Your task to perform on an android device: Look up the best rated coffee maker on Lowe's. Image 0: 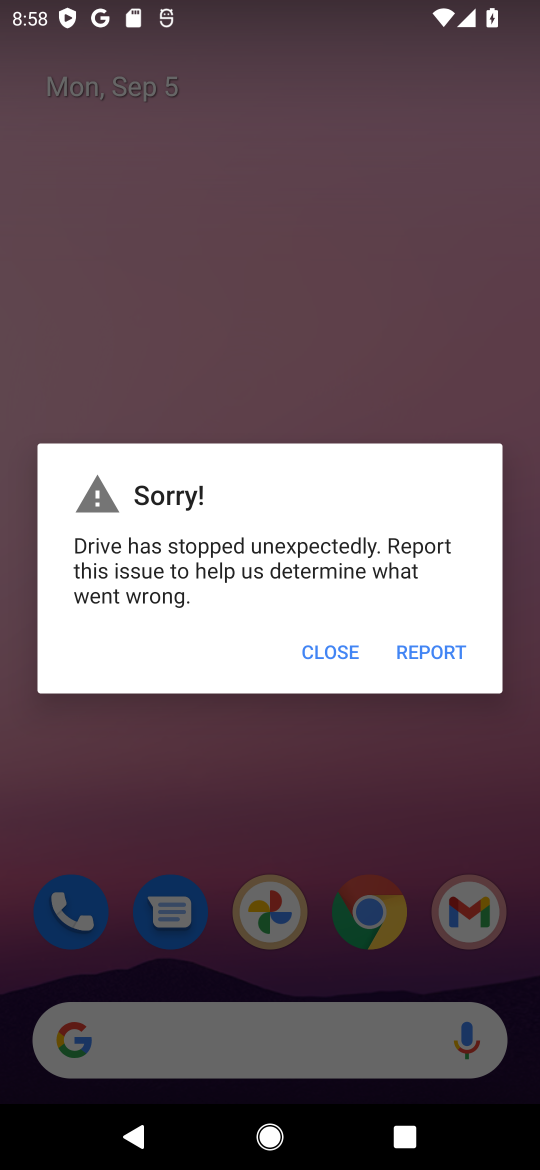
Step 0: press home button
Your task to perform on an android device: Look up the best rated coffee maker on Lowe's. Image 1: 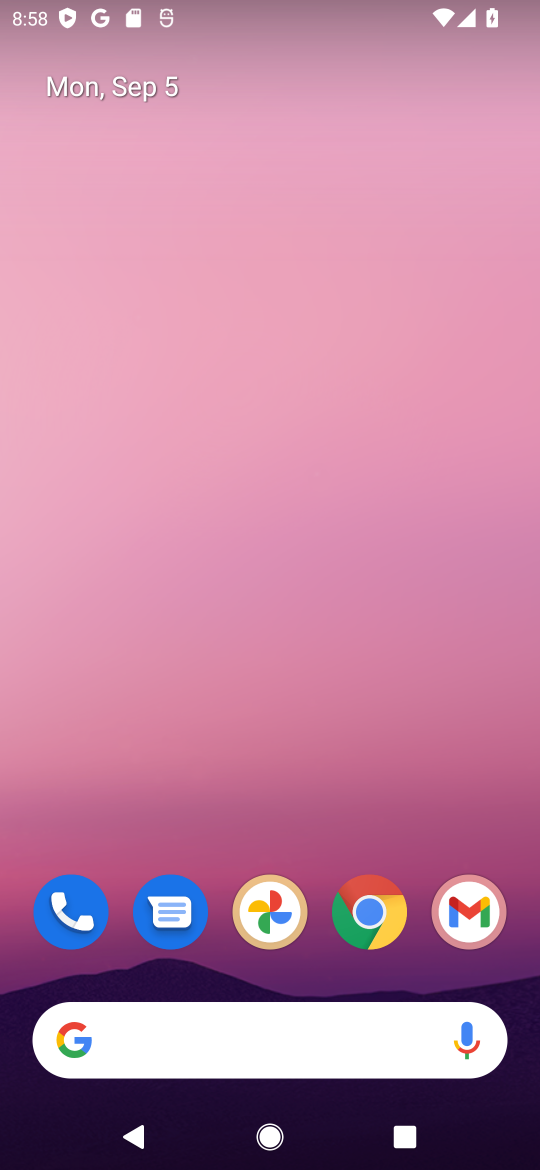
Step 1: click (374, 918)
Your task to perform on an android device: Look up the best rated coffee maker on Lowe's. Image 2: 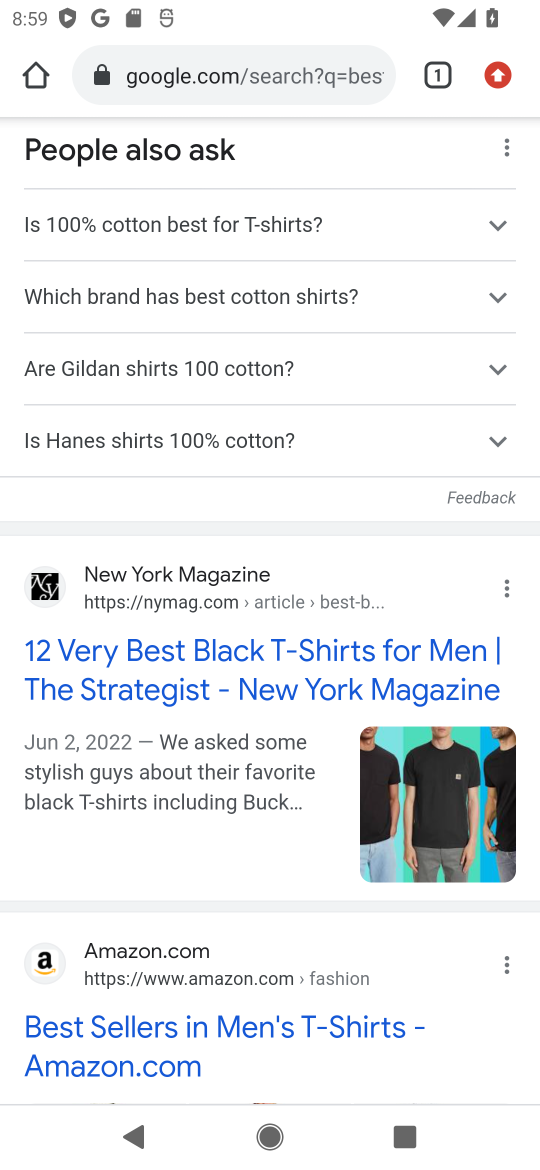
Step 2: click (273, 101)
Your task to perform on an android device: Look up the best rated coffee maker on Lowe's. Image 3: 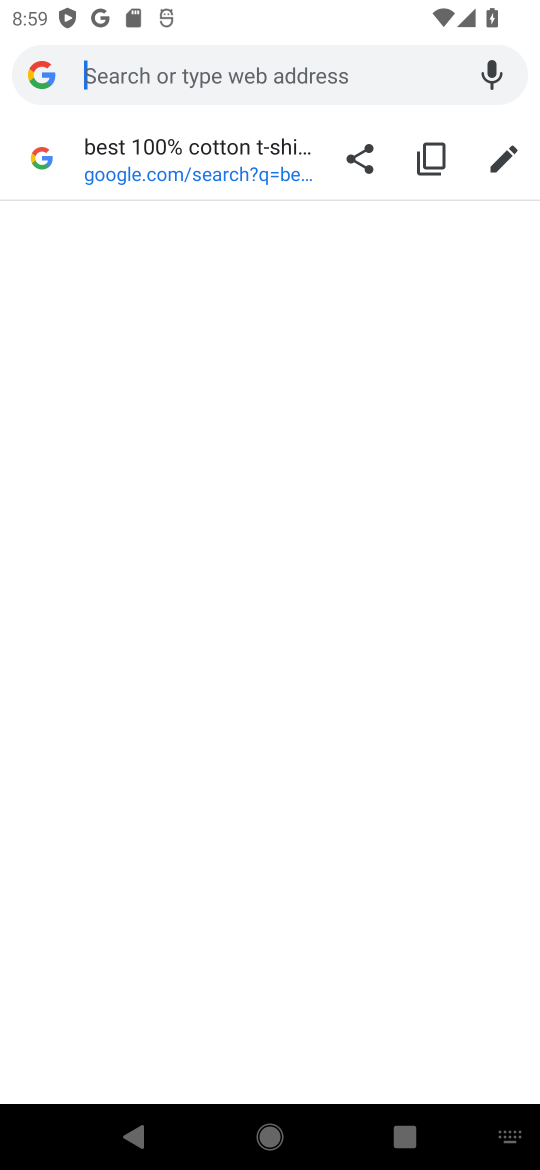
Step 3: click (263, 80)
Your task to perform on an android device: Look up the best rated coffee maker on Lowe's. Image 4: 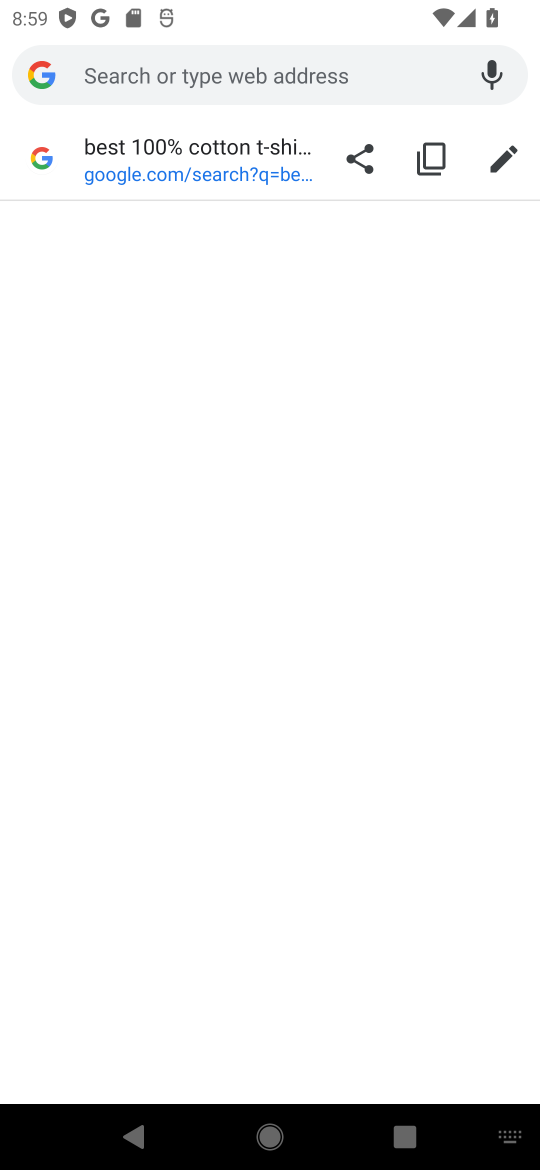
Step 4: type "lowe's"
Your task to perform on an android device: Look up the best rated coffee maker on Lowe's. Image 5: 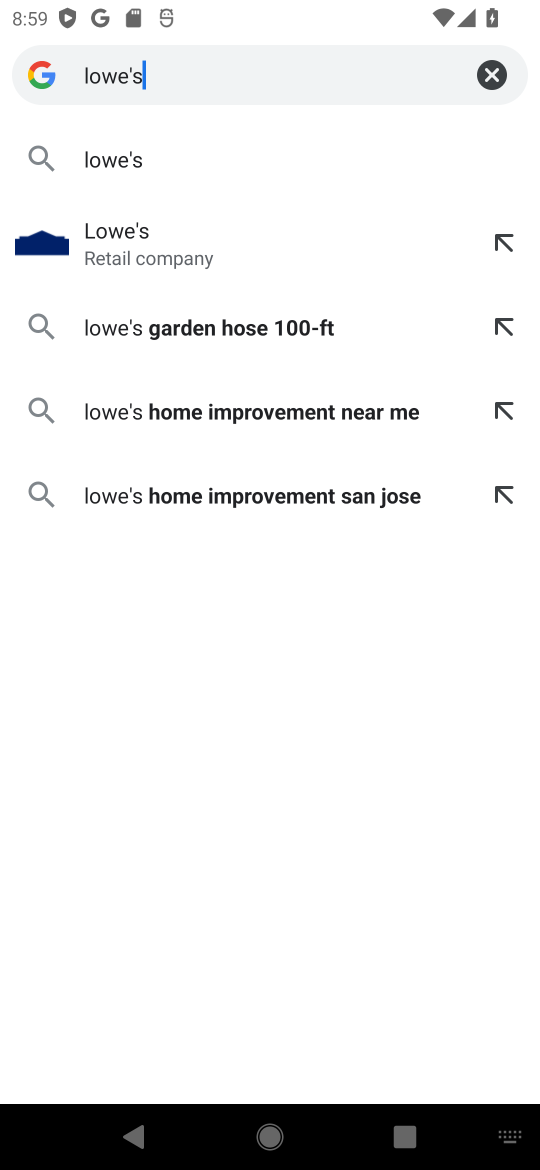
Step 5: press enter
Your task to perform on an android device: Look up the best rated coffee maker on Lowe's. Image 6: 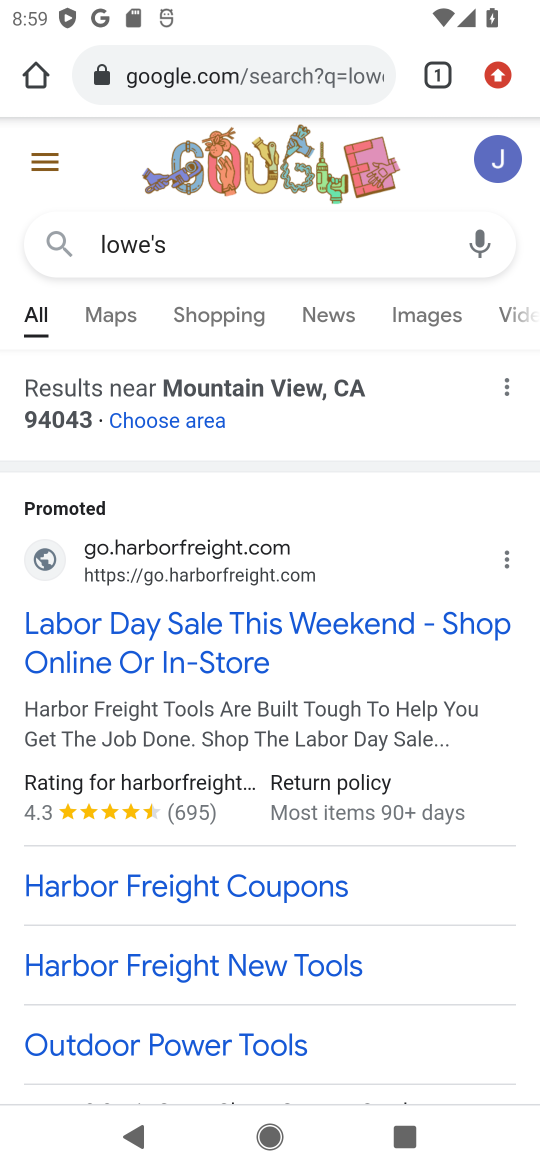
Step 6: drag from (302, 785) to (268, 387)
Your task to perform on an android device: Look up the best rated coffee maker on Lowe's. Image 7: 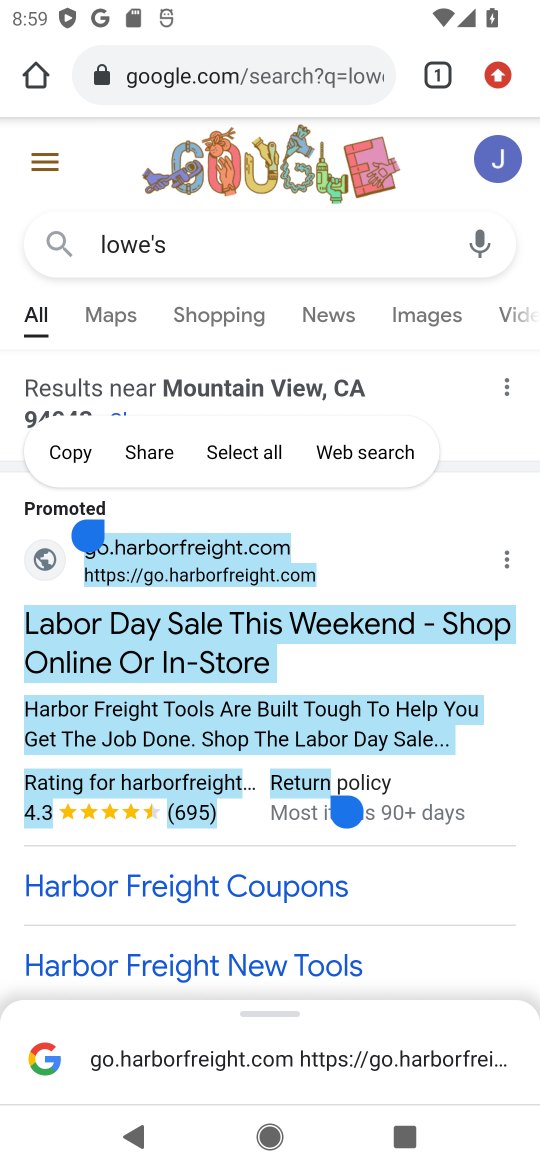
Step 7: click (388, 711)
Your task to perform on an android device: Look up the best rated coffee maker on Lowe's. Image 8: 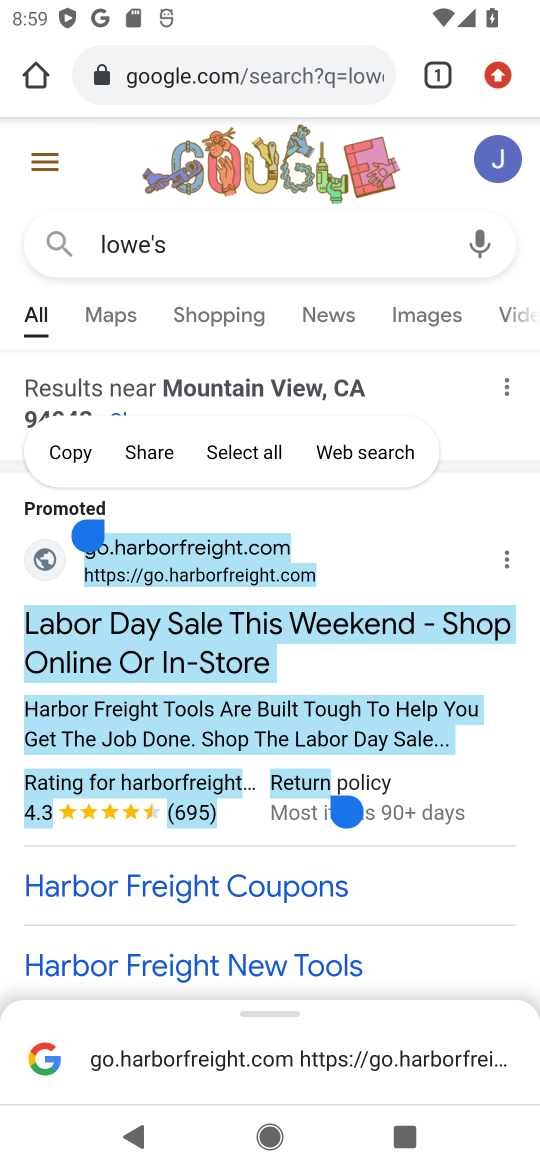
Step 8: click (338, 724)
Your task to perform on an android device: Look up the best rated coffee maker on Lowe's. Image 9: 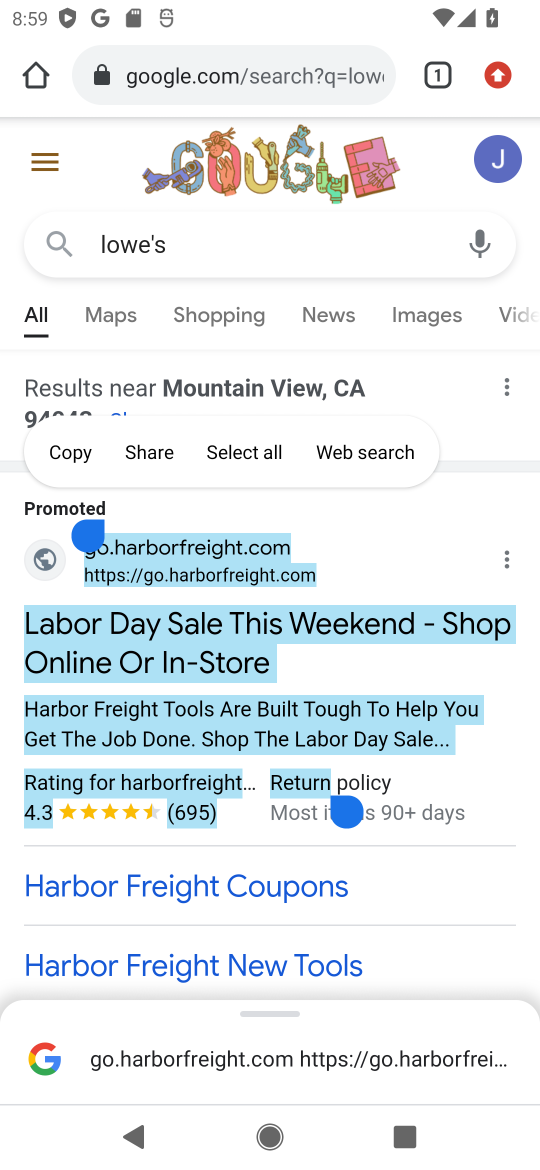
Step 9: drag from (387, 898) to (396, 255)
Your task to perform on an android device: Look up the best rated coffee maker on Lowe's. Image 10: 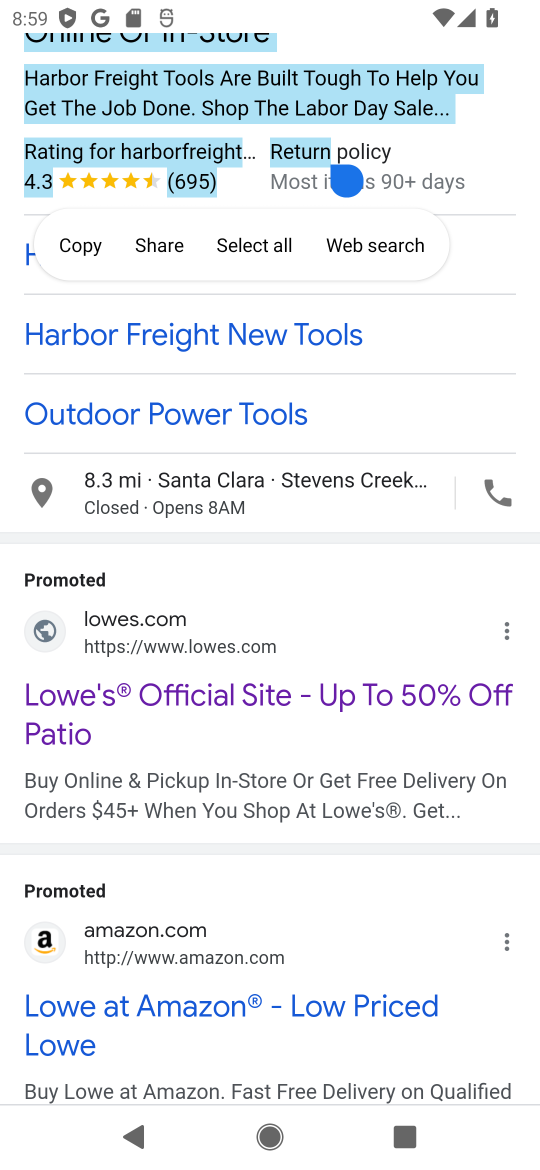
Step 10: click (300, 867)
Your task to perform on an android device: Look up the best rated coffee maker on Lowe's. Image 11: 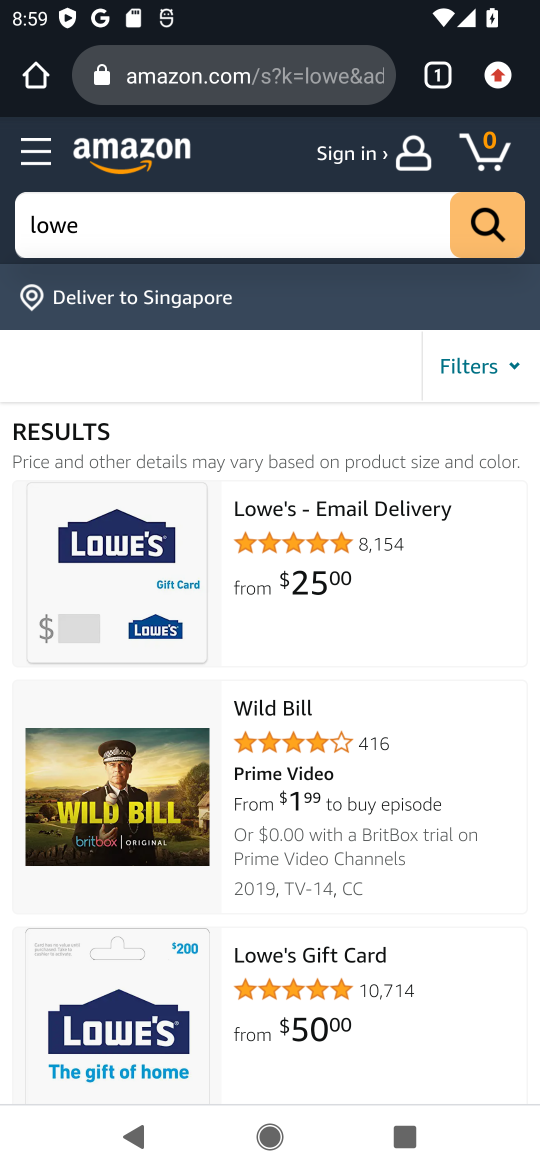
Step 11: press back button
Your task to perform on an android device: Look up the best rated coffee maker on Lowe's. Image 12: 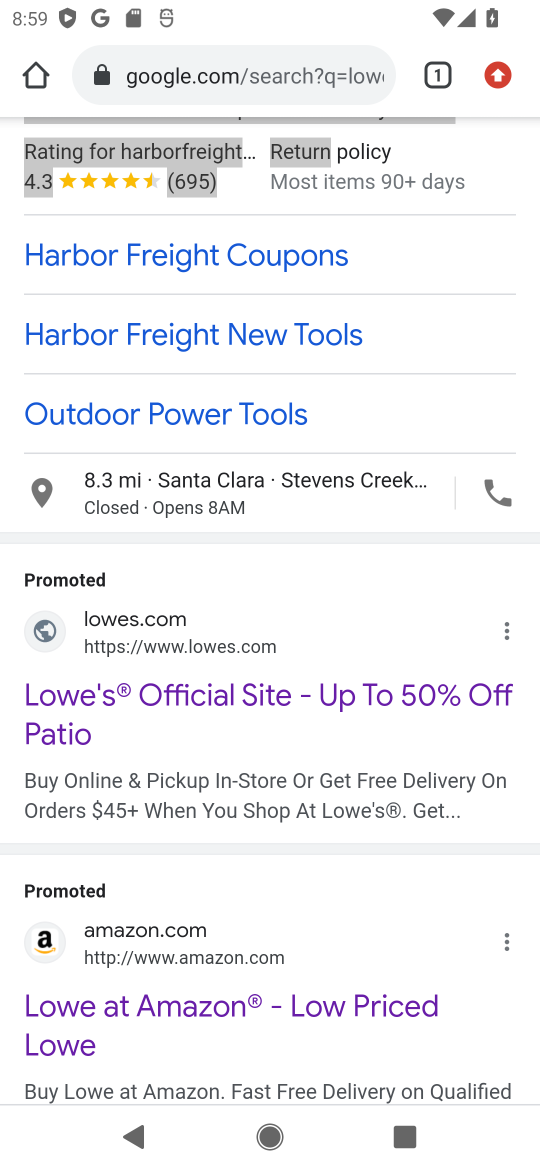
Step 12: click (232, 691)
Your task to perform on an android device: Look up the best rated coffee maker on Lowe's. Image 13: 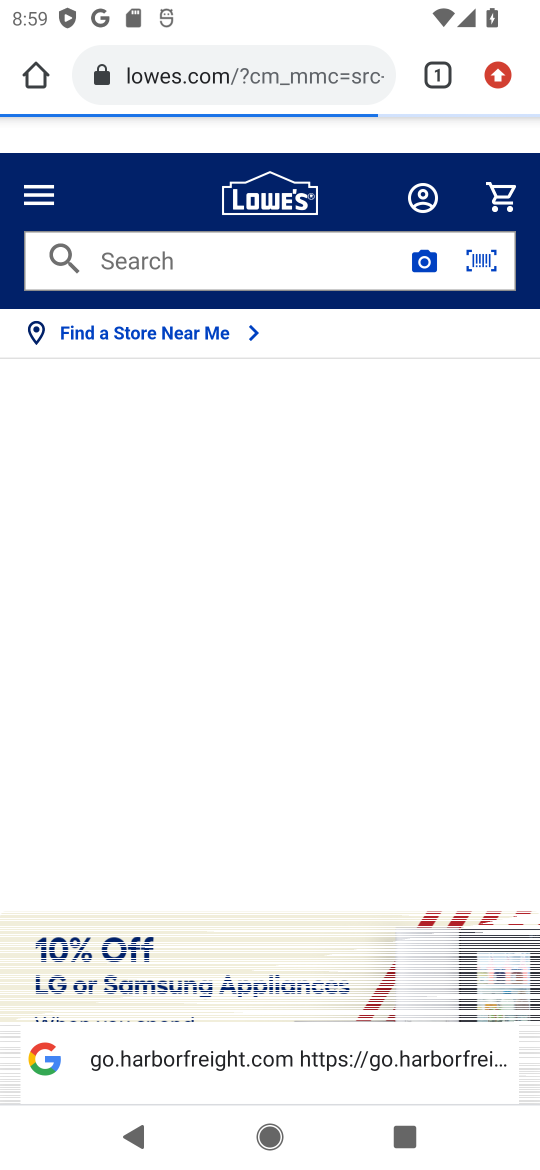
Step 13: click (315, 281)
Your task to perform on an android device: Look up the best rated coffee maker on Lowe's. Image 14: 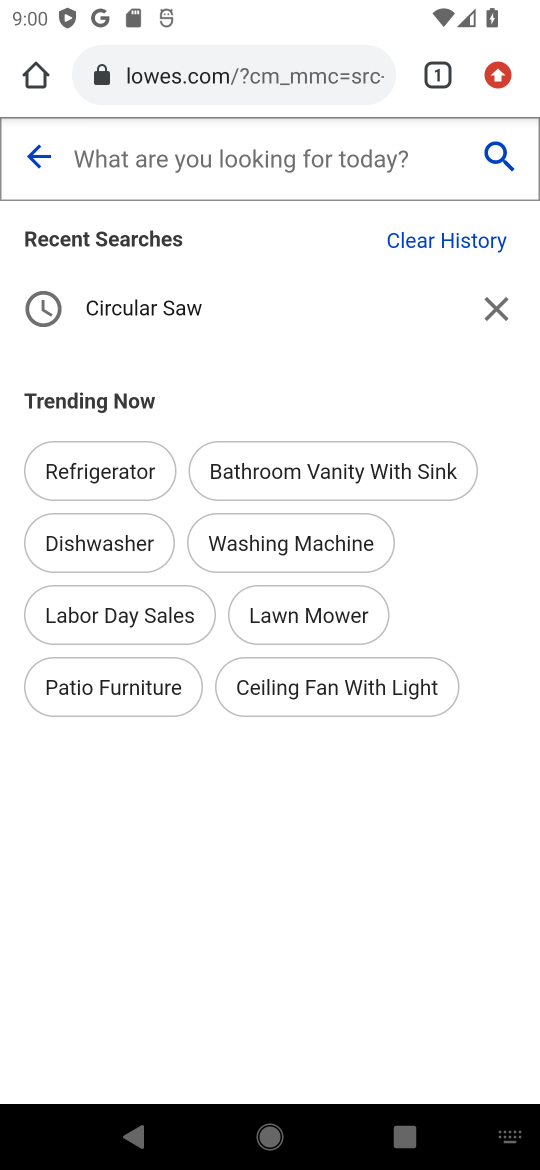
Step 14: type "coffee maker"
Your task to perform on an android device: Look up the best rated coffee maker on Lowe's. Image 15: 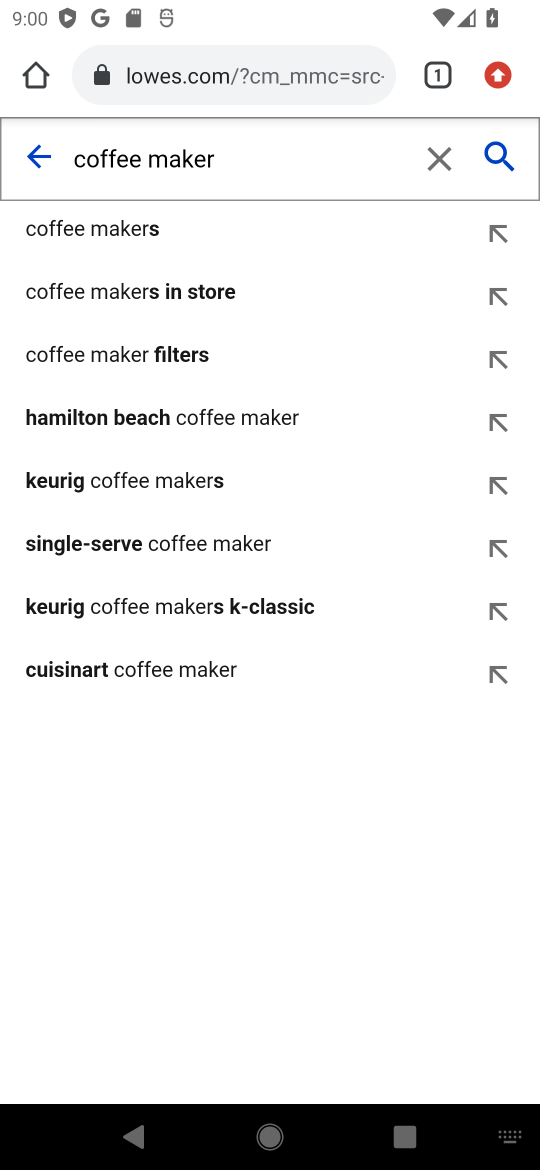
Step 15: press enter
Your task to perform on an android device: Look up the best rated coffee maker on Lowe's. Image 16: 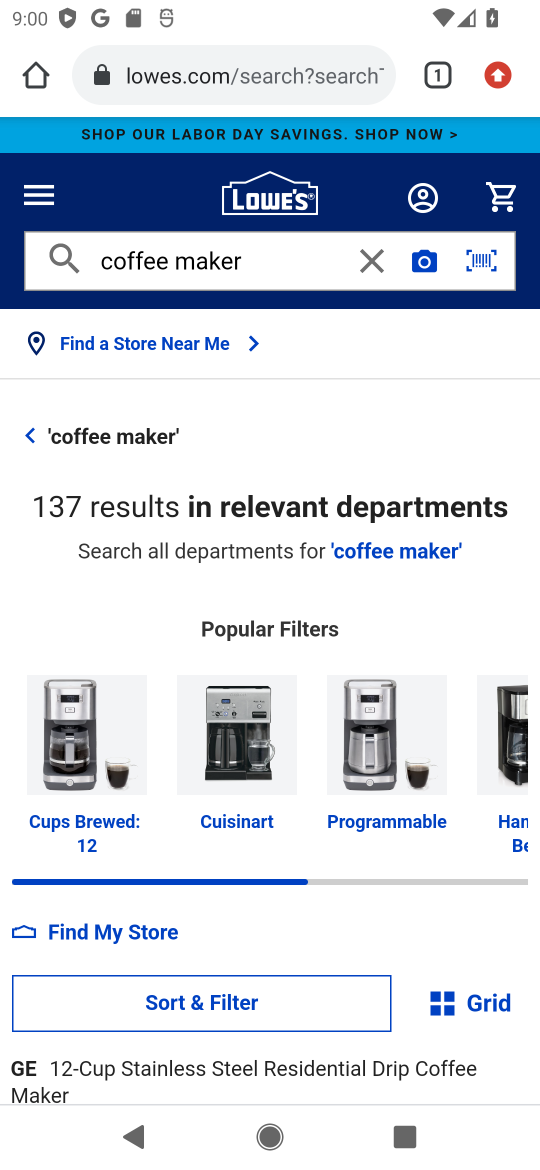
Step 16: drag from (262, 869) to (264, 485)
Your task to perform on an android device: Look up the best rated coffee maker on Lowe's. Image 17: 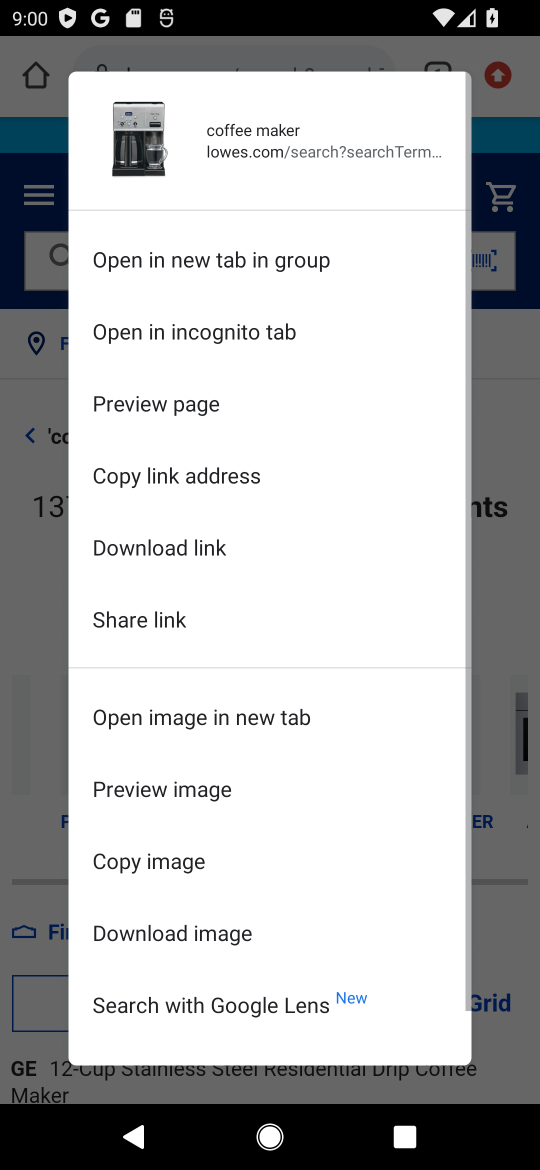
Step 17: click (508, 635)
Your task to perform on an android device: Look up the best rated coffee maker on Lowe's. Image 18: 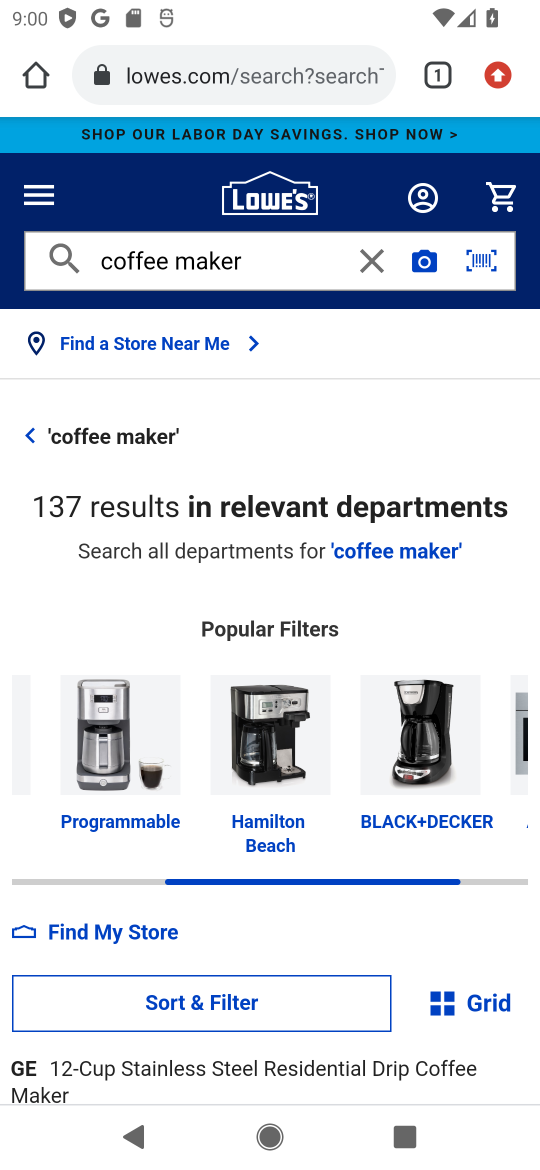
Step 18: click (290, 1016)
Your task to perform on an android device: Look up the best rated coffee maker on Lowe's. Image 19: 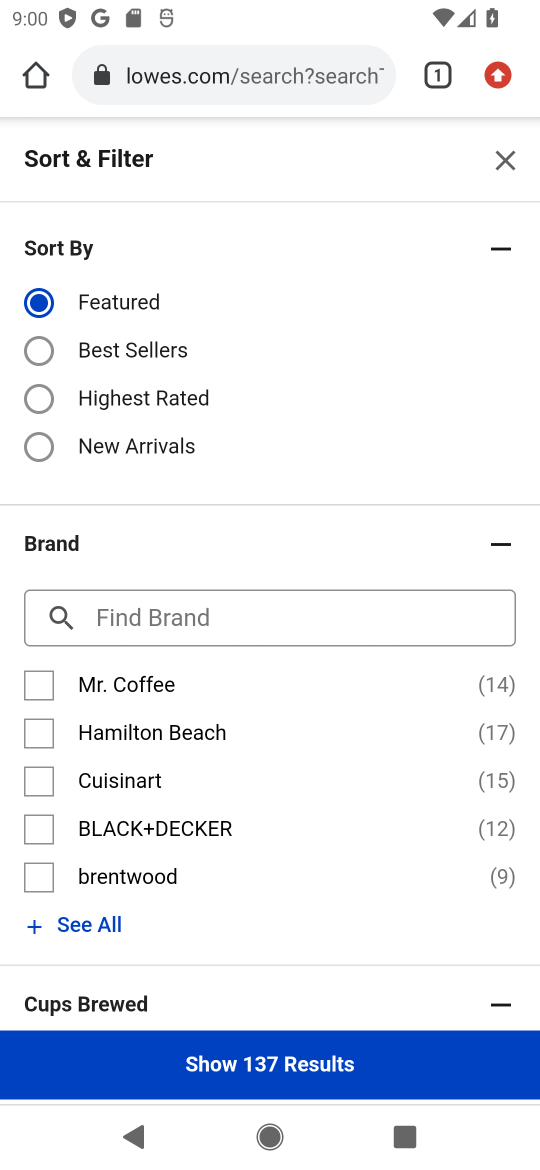
Step 19: click (129, 404)
Your task to perform on an android device: Look up the best rated coffee maker on Lowe's. Image 20: 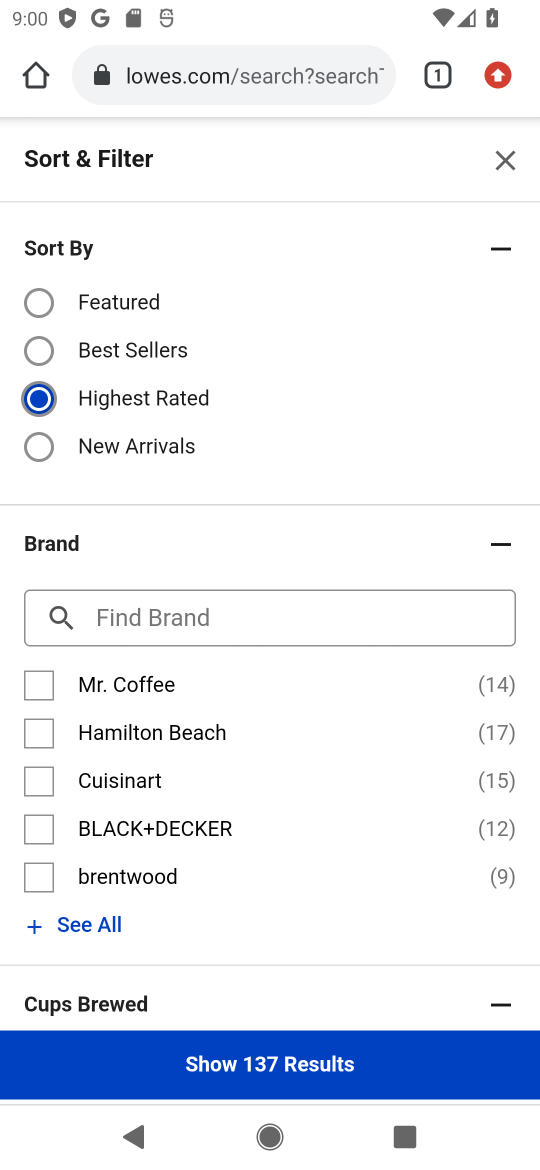
Step 20: click (289, 1061)
Your task to perform on an android device: Look up the best rated coffee maker on Lowe's. Image 21: 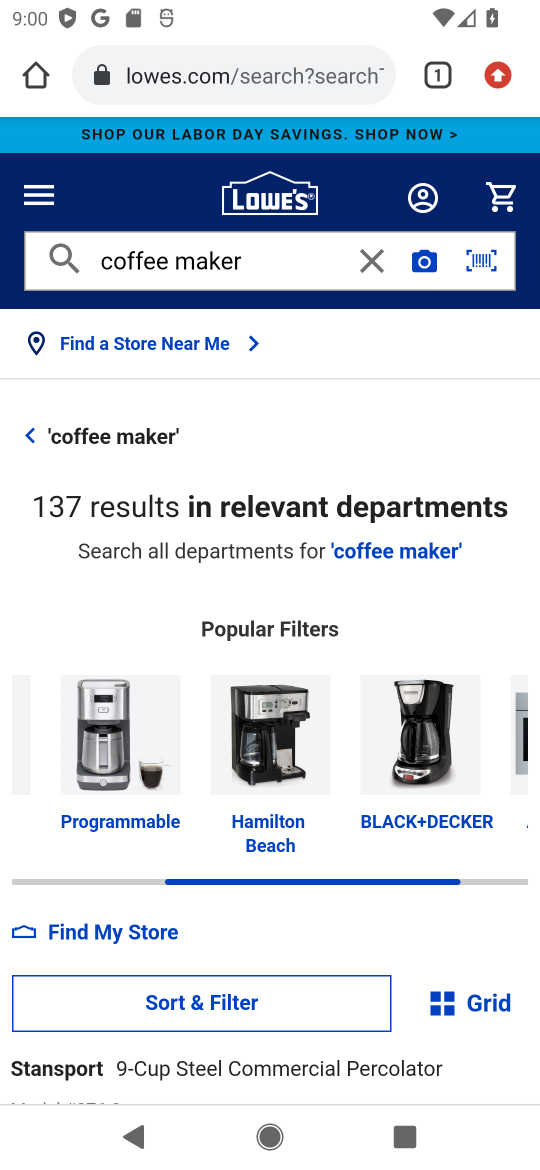
Step 21: drag from (258, 726) to (249, 807)
Your task to perform on an android device: Look up the best rated coffee maker on Lowe's. Image 22: 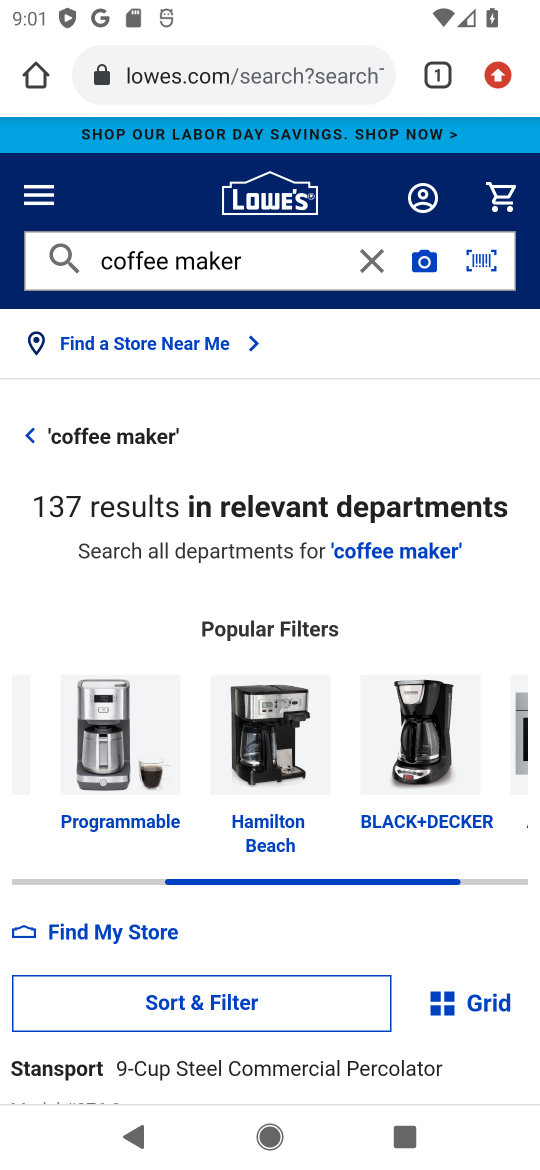
Step 22: drag from (288, 709) to (264, 412)
Your task to perform on an android device: Look up the best rated coffee maker on Lowe's. Image 23: 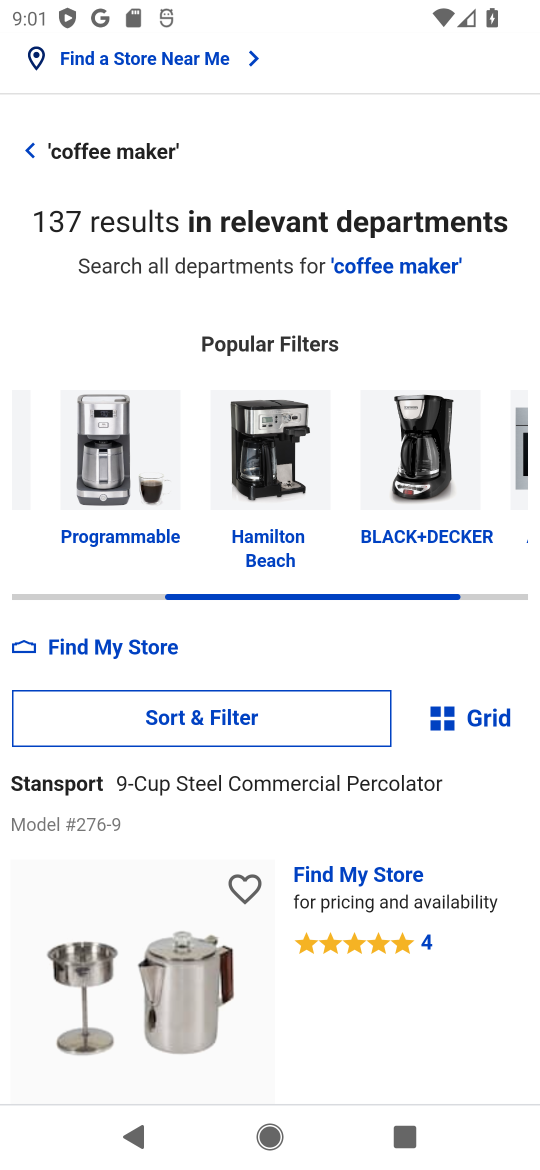
Step 23: drag from (303, 945) to (314, 425)
Your task to perform on an android device: Look up the best rated coffee maker on Lowe's. Image 24: 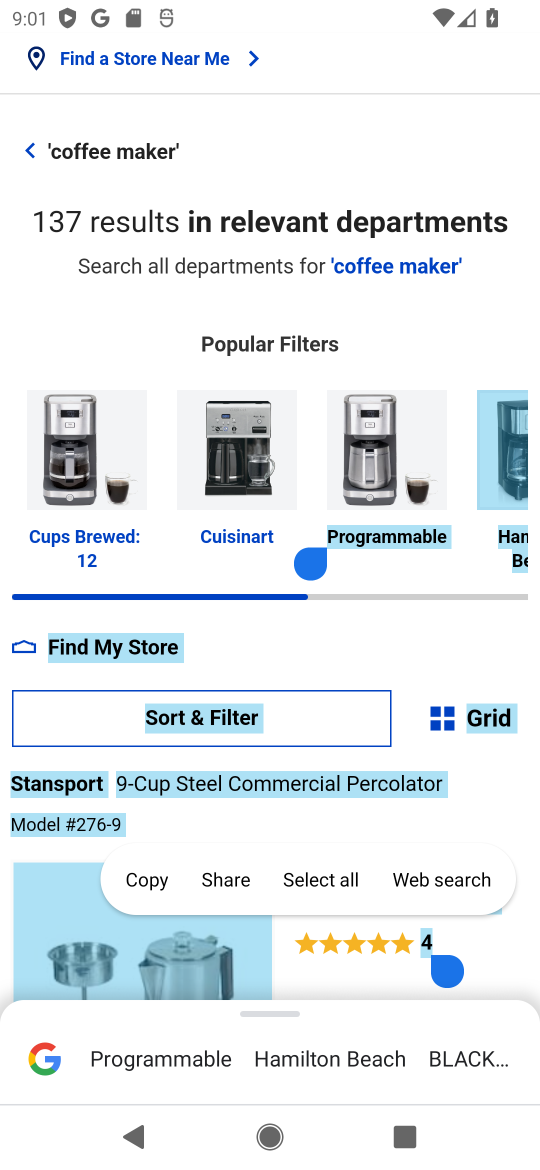
Step 24: click (310, 641)
Your task to perform on an android device: Look up the best rated coffee maker on Lowe's. Image 25: 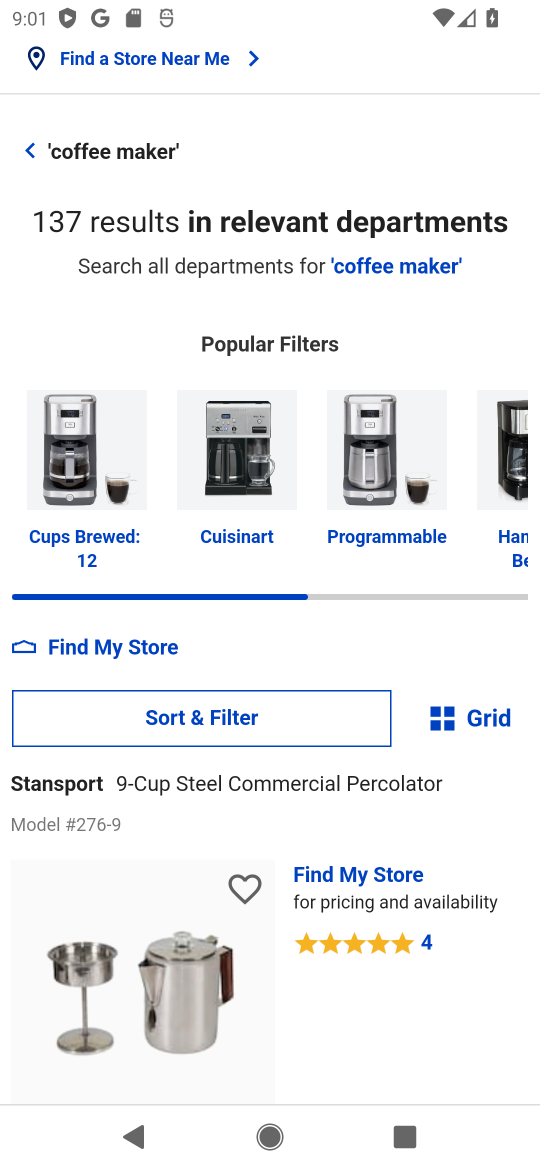
Step 25: task complete